Your task to perform on an android device: toggle location history Image 0: 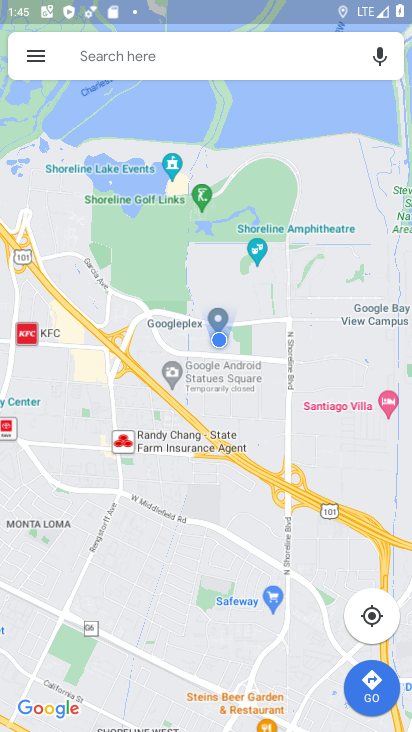
Step 0: click (34, 57)
Your task to perform on an android device: toggle location history Image 1: 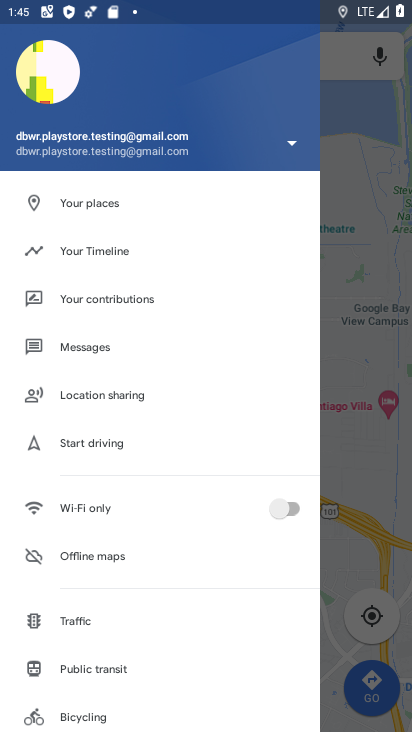
Step 1: drag from (196, 659) to (221, 345)
Your task to perform on an android device: toggle location history Image 2: 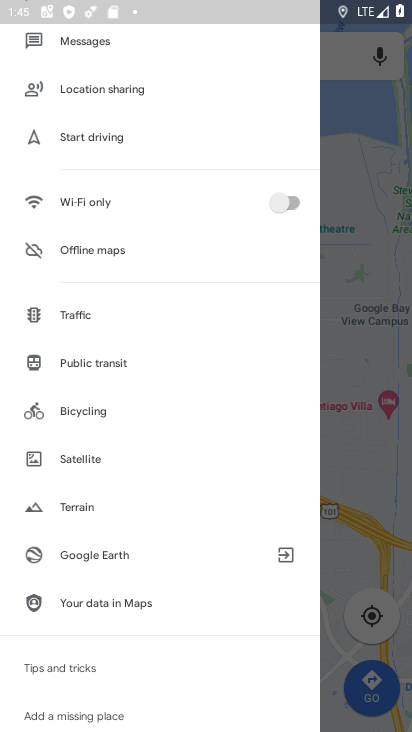
Step 2: drag from (180, 633) to (192, 278)
Your task to perform on an android device: toggle location history Image 3: 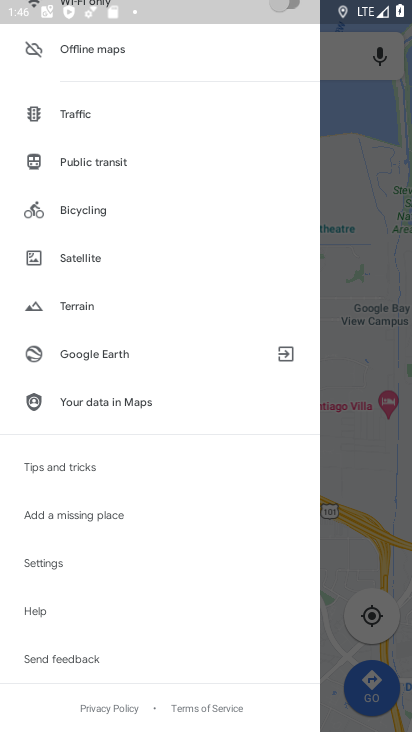
Step 3: click (28, 559)
Your task to perform on an android device: toggle location history Image 4: 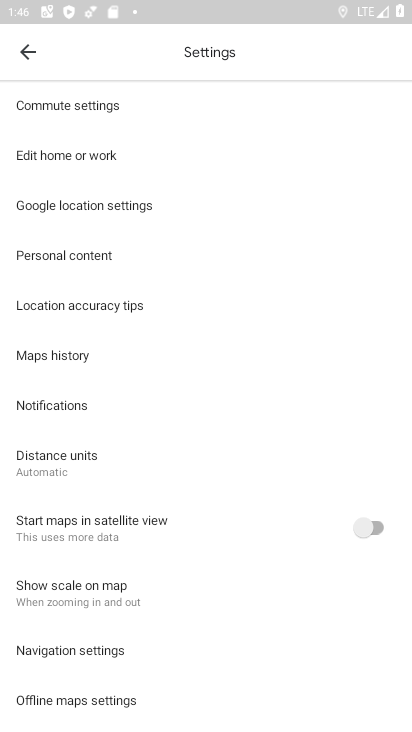
Step 4: click (50, 243)
Your task to perform on an android device: toggle location history Image 5: 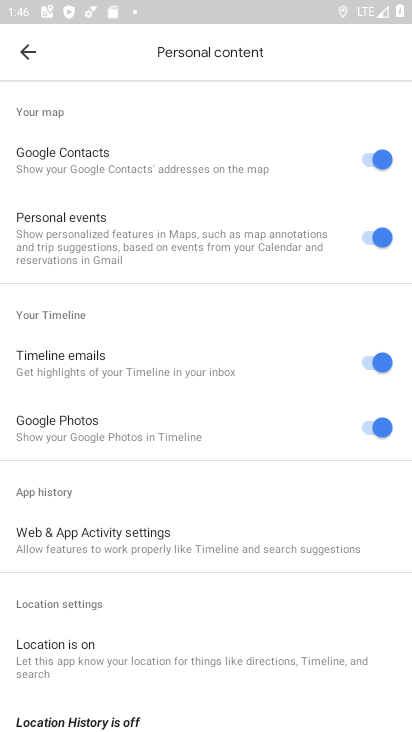
Step 5: drag from (214, 645) to (282, 328)
Your task to perform on an android device: toggle location history Image 6: 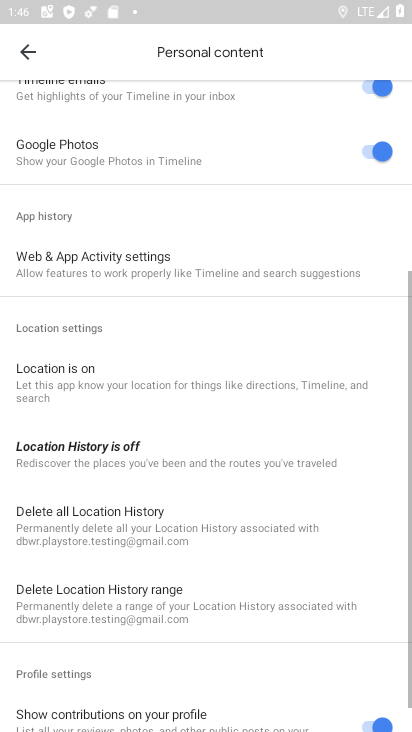
Step 6: click (282, 328)
Your task to perform on an android device: toggle location history Image 7: 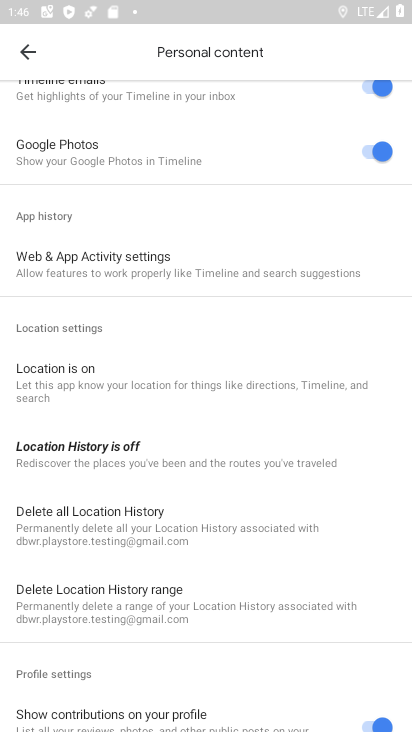
Step 7: click (54, 517)
Your task to perform on an android device: toggle location history Image 8: 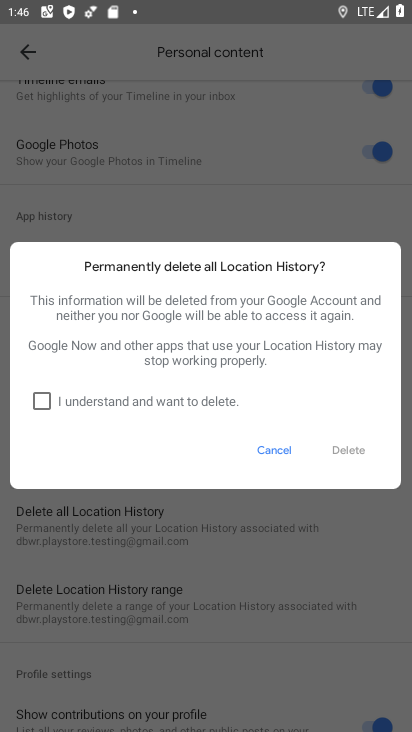
Step 8: click (42, 400)
Your task to perform on an android device: toggle location history Image 9: 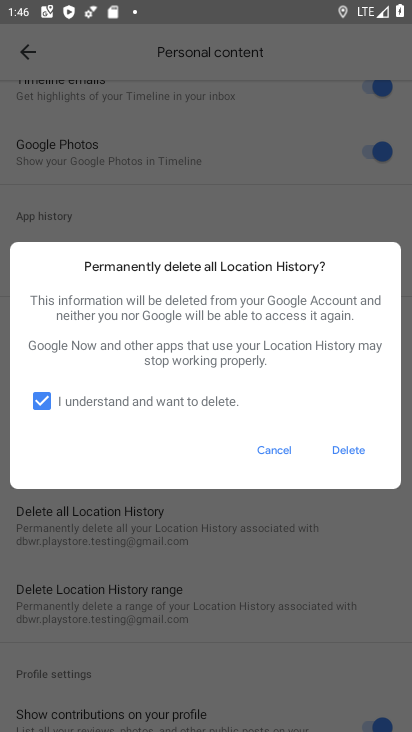
Step 9: click (345, 449)
Your task to perform on an android device: toggle location history Image 10: 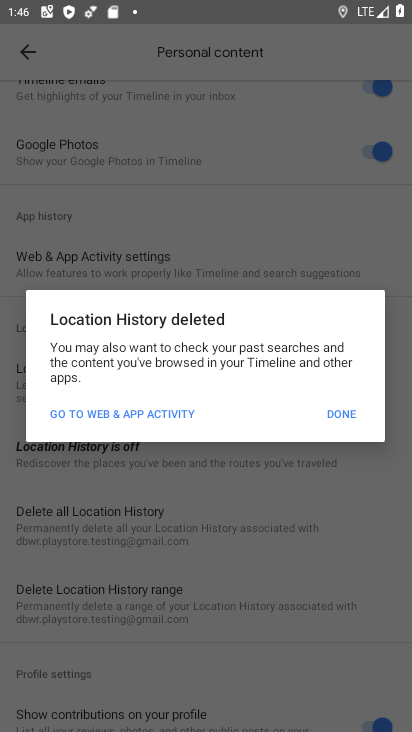
Step 10: click (346, 412)
Your task to perform on an android device: toggle location history Image 11: 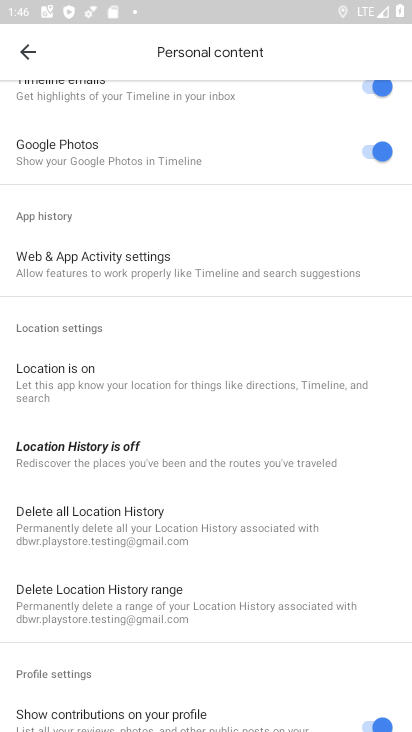
Step 11: task complete